Your task to perform on an android device: Open sound settings Image 0: 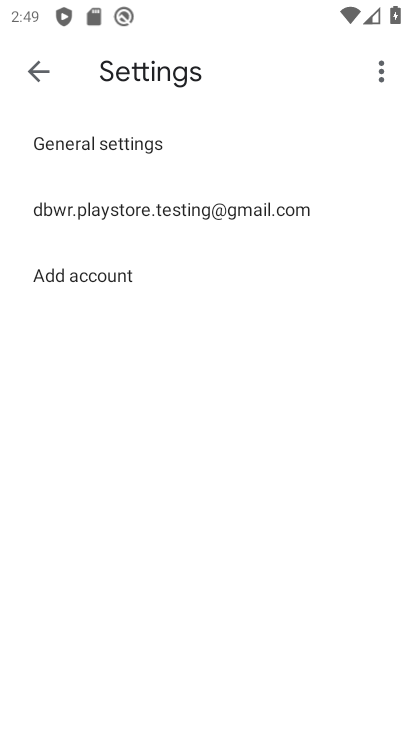
Step 0: press home button
Your task to perform on an android device: Open sound settings Image 1: 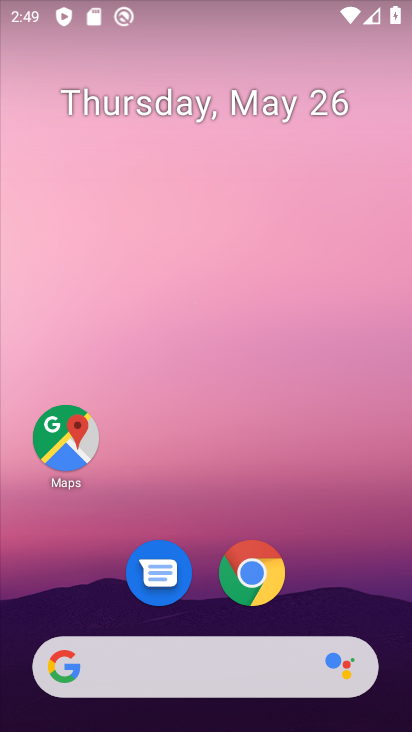
Step 1: drag from (220, 658) to (259, 128)
Your task to perform on an android device: Open sound settings Image 2: 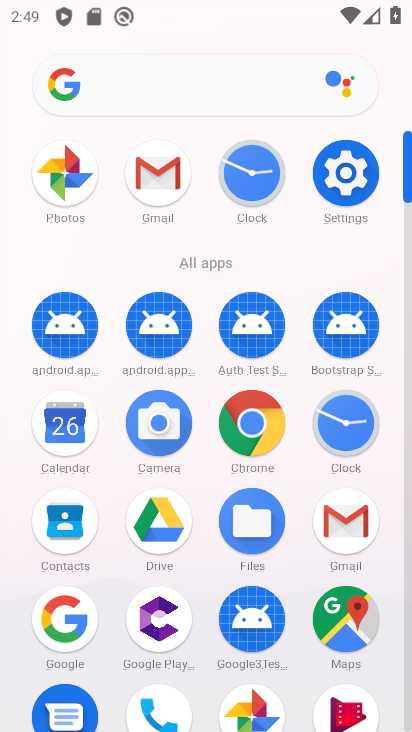
Step 2: click (355, 170)
Your task to perform on an android device: Open sound settings Image 3: 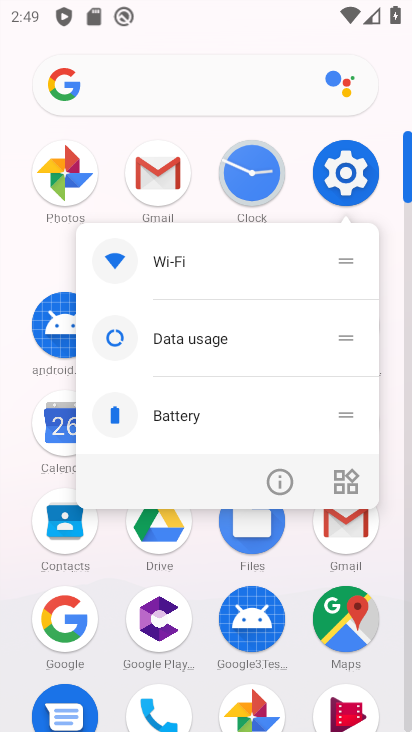
Step 3: click (334, 178)
Your task to perform on an android device: Open sound settings Image 4: 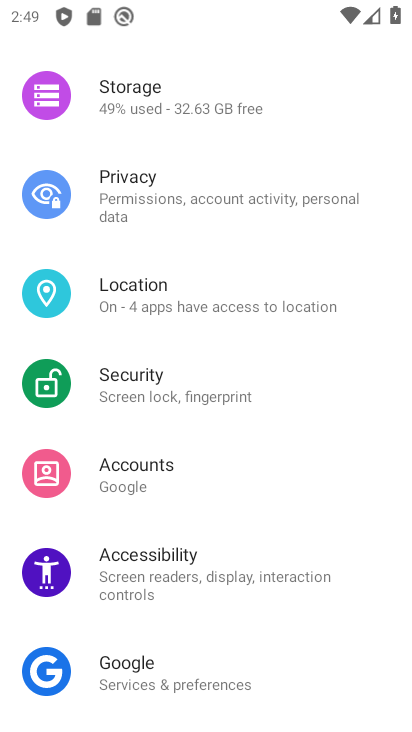
Step 4: drag from (167, 131) to (243, 597)
Your task to perform on an android device: Open sound settings Image 5: 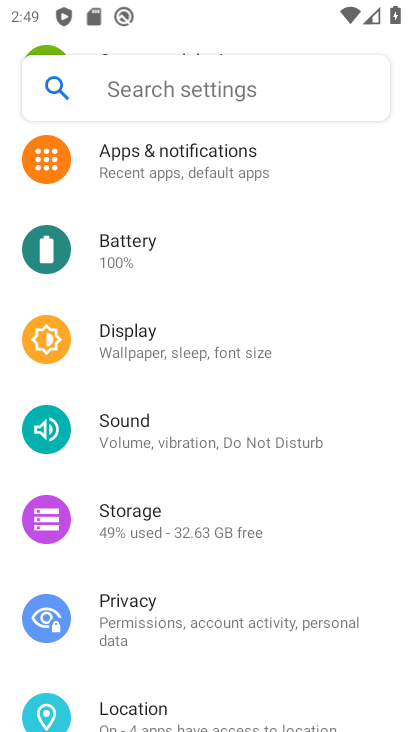
Step 5: click (112, 446)
Your task to perform on an android device: Open sound settings Image 6: 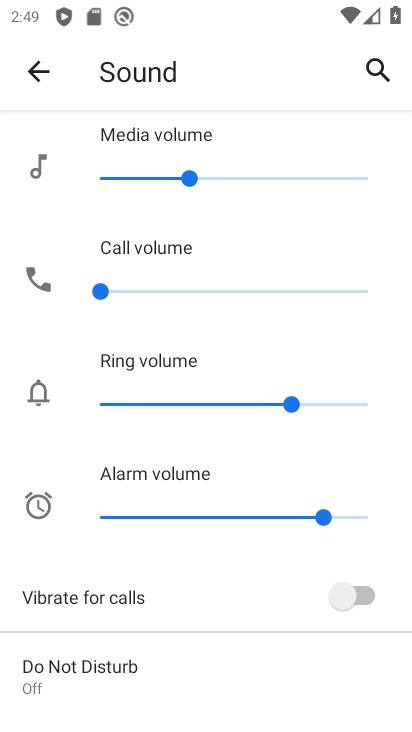
Step 6: task complete